Your task to perform on an android device: add a label to a message in the gmail app Image 0: 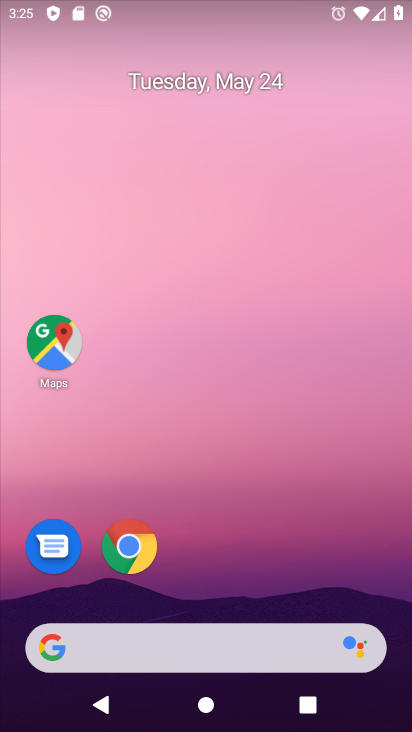
Step 0: drag from (362, 679) to (264, 156)
Your task to perform on an android device: add a label to a message in the gmail app Image 1: 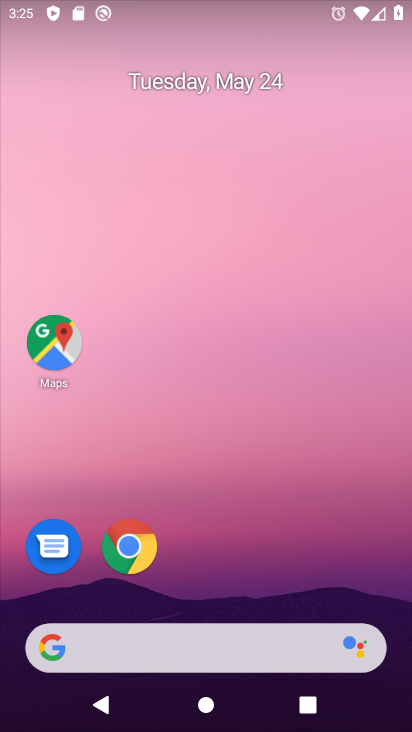
Step 1: drag from (343, 648) to (316, 42)
Your task to perform on an android device: add a label to a message in the gmail app Image 2: 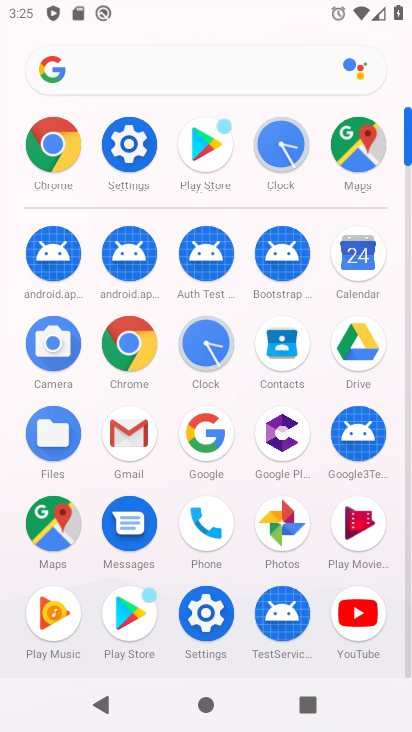
Step 2: click (122, 427)
Your task to perform on an android device: add a label to a message in the gmail app Image 3: 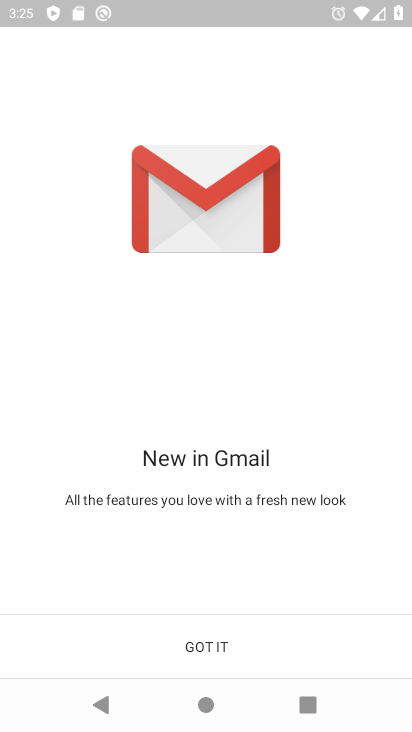
Step 3: click (213, 636)
Your task to perform on an android device: add a label to a message in the gmail app Image 4: 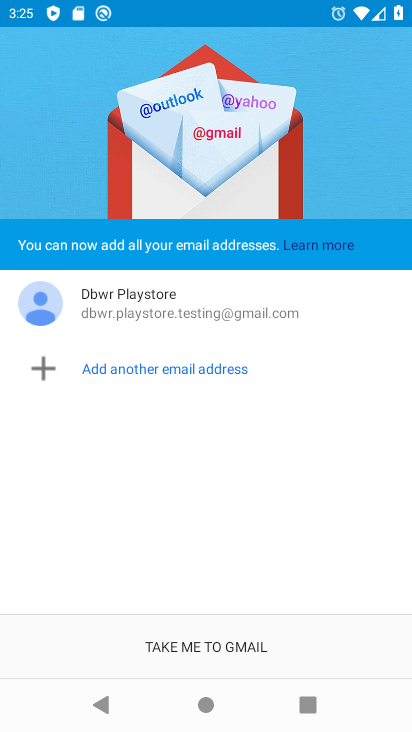
Step 4: click (214, 630)
Your task to perform on an android device: add a label to a message in the gmail app Image 5: 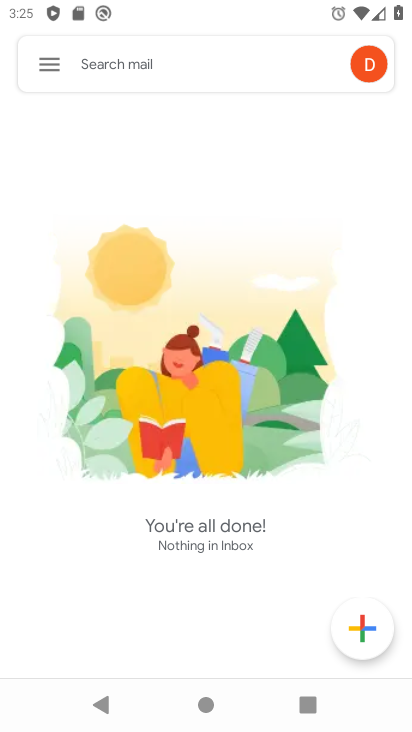
Step 5: click (43, 53)
Your task to perform on an android device: add a label to a message in the gmail app Image 6: 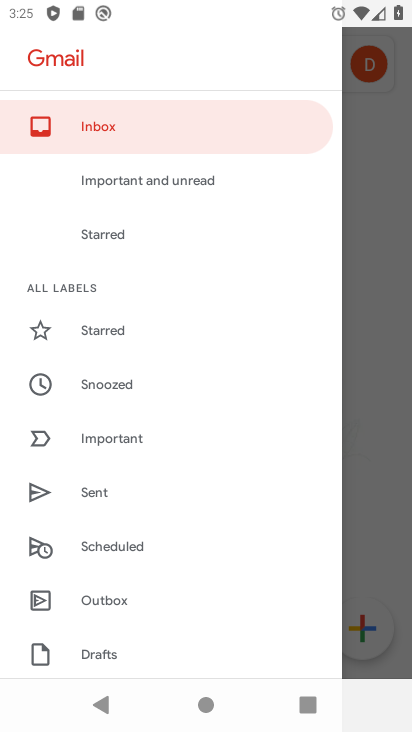
Step 6: drag from (159, 460) to (142, 265)
Your task to perform on an android device: add a label to a message in the gmail app Image 7: 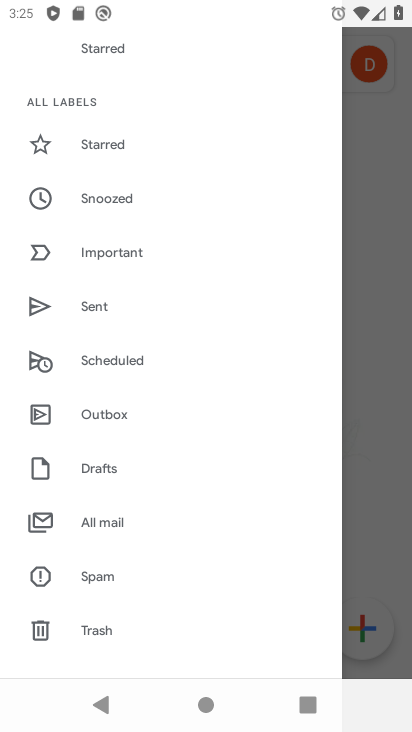
Step 7: click (110, 518)
Your task to perform on an android device: add a label to a message in the gmail app Image 8: 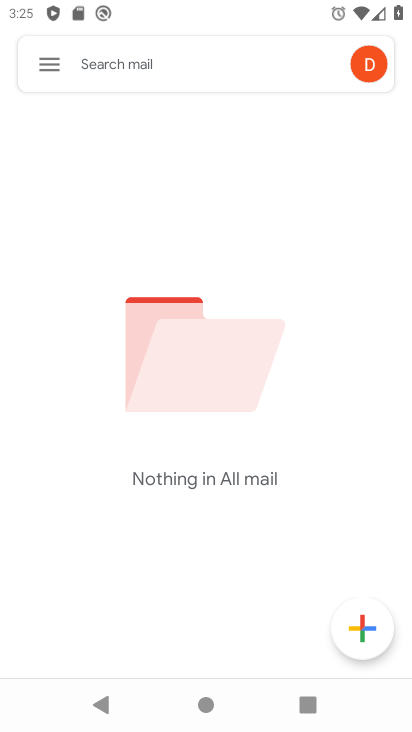
Step 8: task complete